Your task to perform on an android device: toggle sleep mode Image 0: 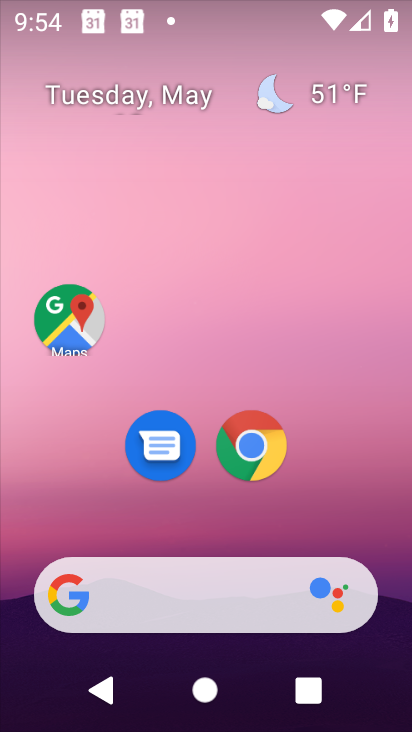
Step 0: drag from (254, 593) to (214, 64)
Your task to perform on an android device: toggle sleep mode Image 1: 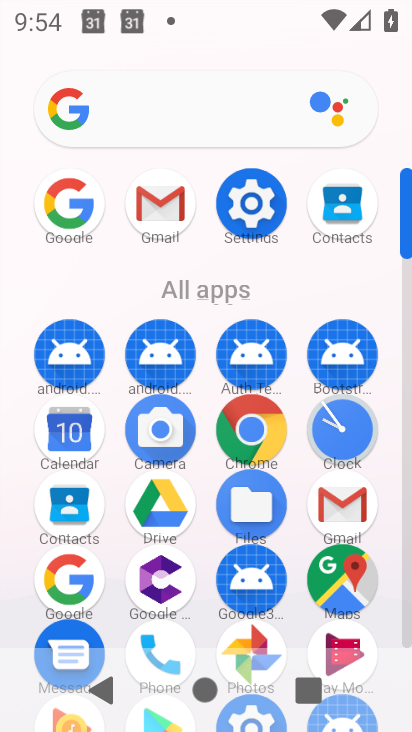
Step 1: click (247, 192)
Your task to perform on an android device: toggle sleep mode Image 2: 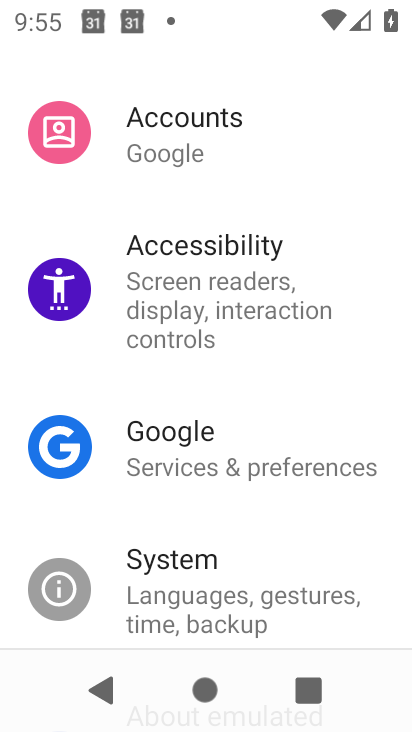
Step 2: drag from (161, 133) to (172, 564)
Your task to perform on an android device: toggle sleep mode Image 3: 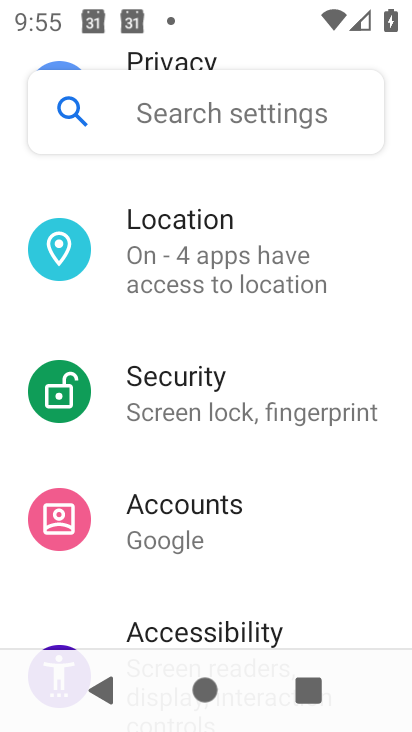
Step 3: drag from (242, 259) to (253, 461)
Your task to perform on an android device: toggle sleep mode Image 4: 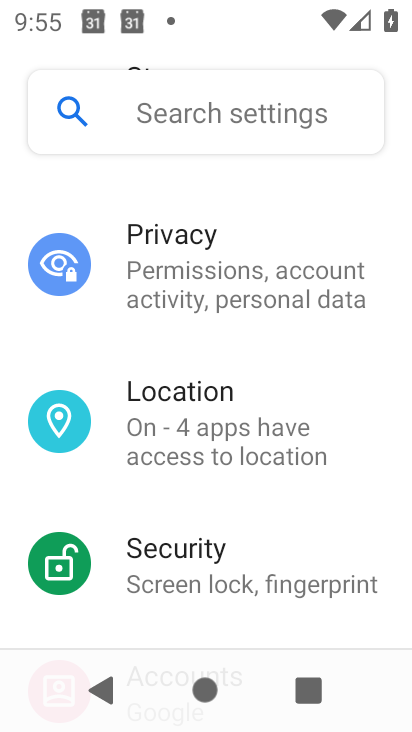
Step 4: drag from (198, 301) to (224, 528)
Your task to perform on an android device: toggle sleep mode Image 5: 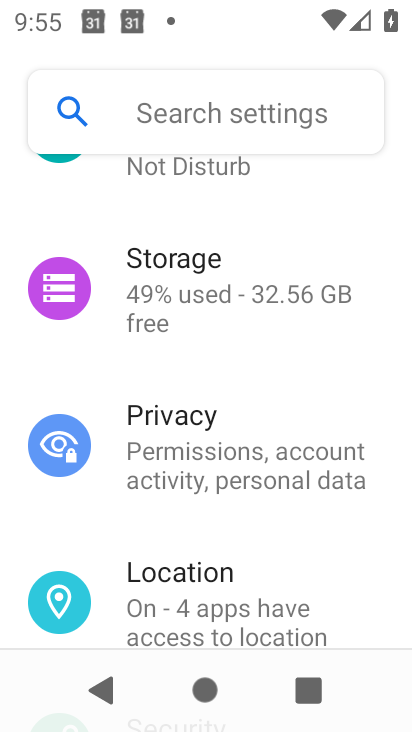
Step 5: drag from (183, 221) to (203, 468)
Your task to perform on an android device: toggle sleep mode Image 6: 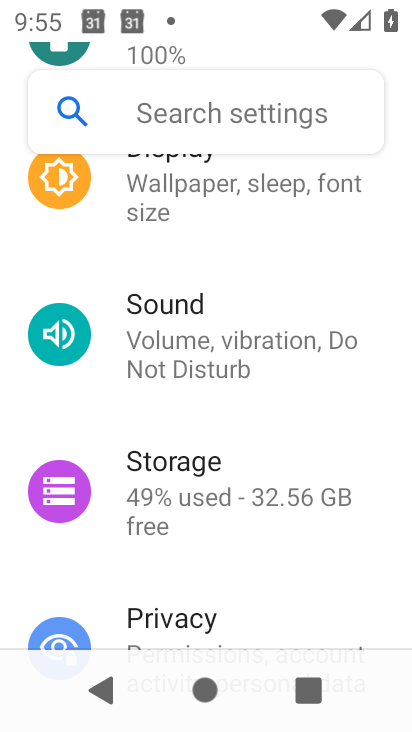
Step 6: click (154, 199)
Your task to perform on an android device: toggle sleep mode Image 7: 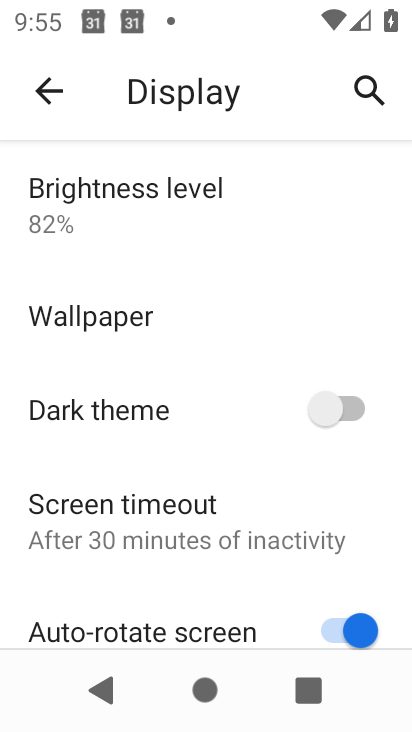
Step 7: drag from (153, 482) to (104, 19)
Your task to perform on an android device: toggle sleep mode Image 8: 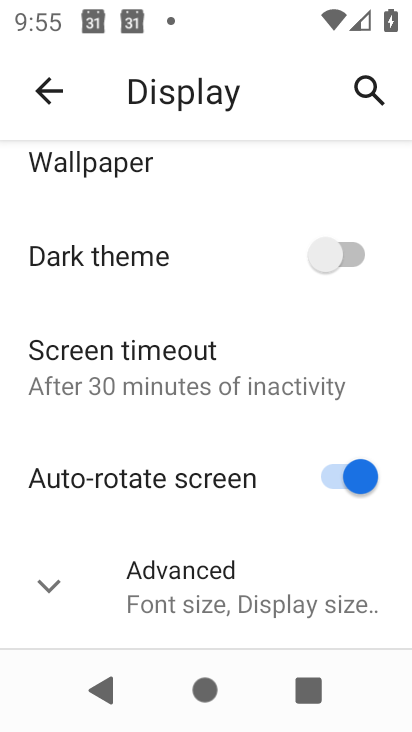
Step 8: click (197, 575)
Your task to perform on an android device: toggle sleep mode Image 9: 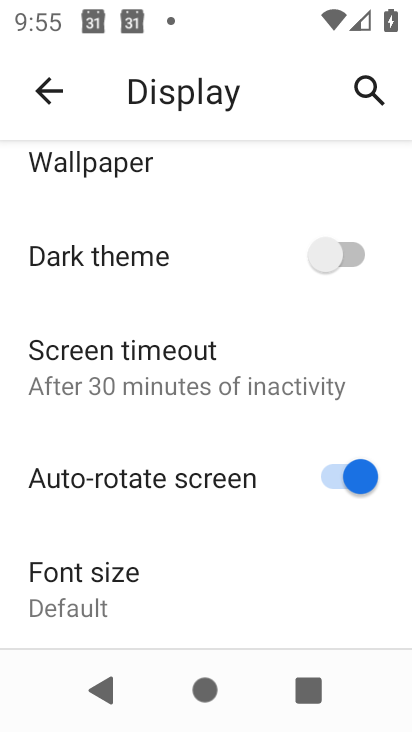
Step 9: task complete